Your task to perform on an android device: turn on data saver in the chrome app Image 0: 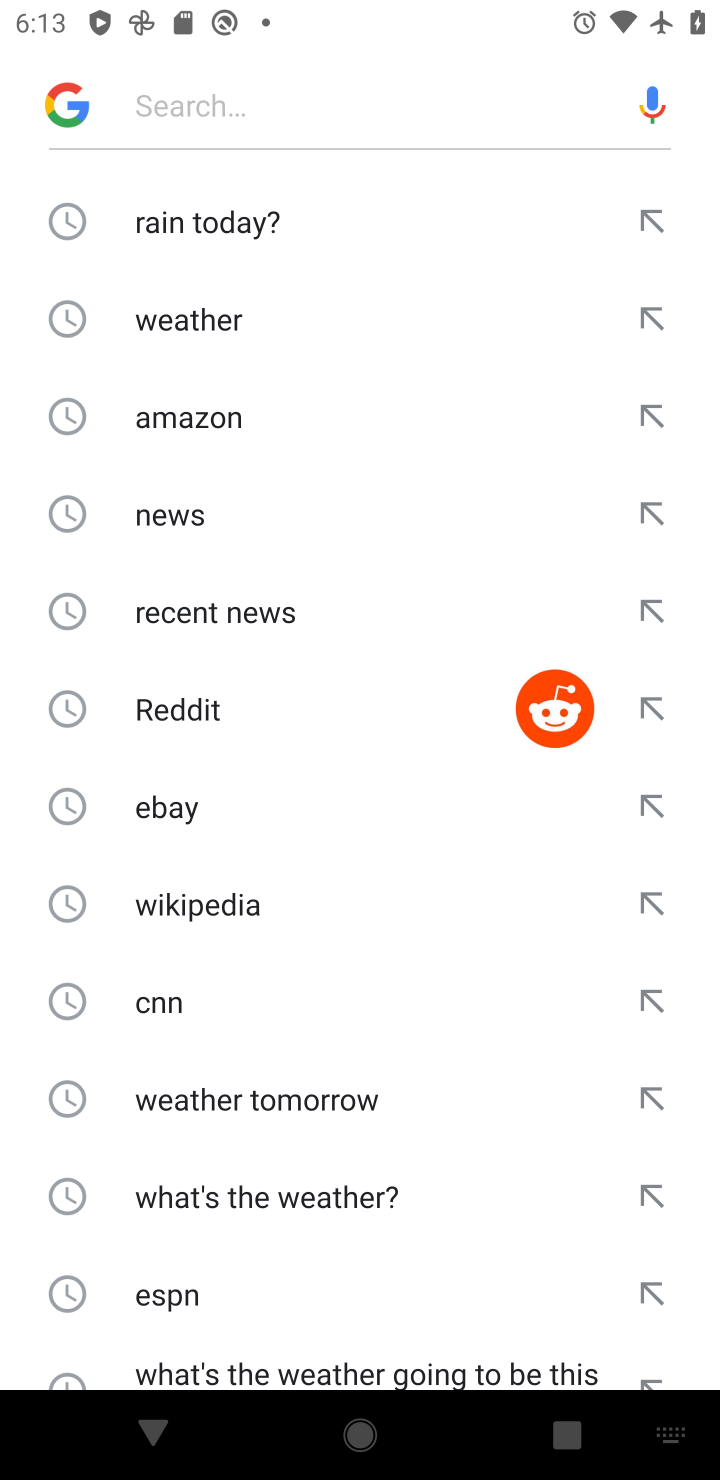
Step 0: press home button
Your task to perform on an android device: turn on data saver in the chrome app Image 1: 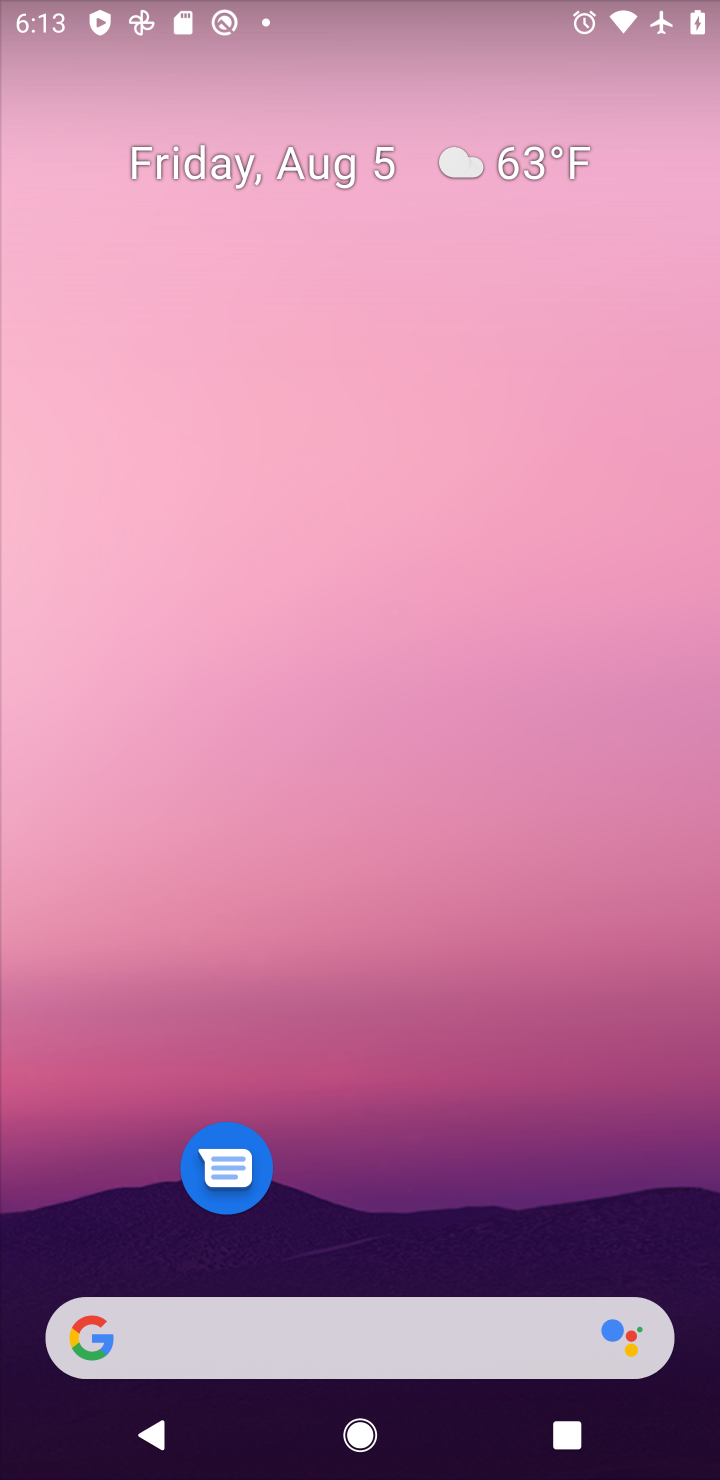
Step 1: drag from (430, 1252) to (401, 95)
Your task to perform on an android device: turn on data saver in the chrome app Image 2: 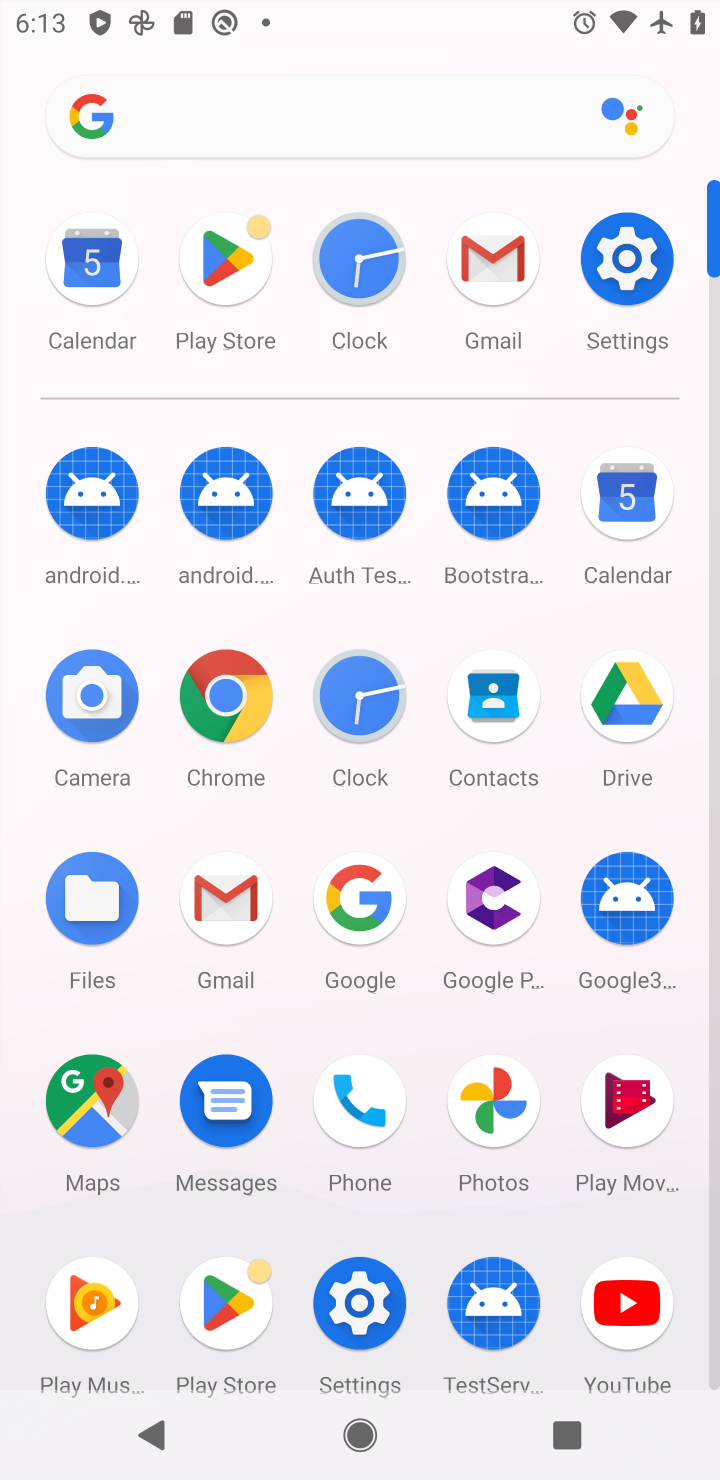
Step 2: click (221, 690)
Your task to perform on an android device: turn on data saver in the chrome app Image 3: 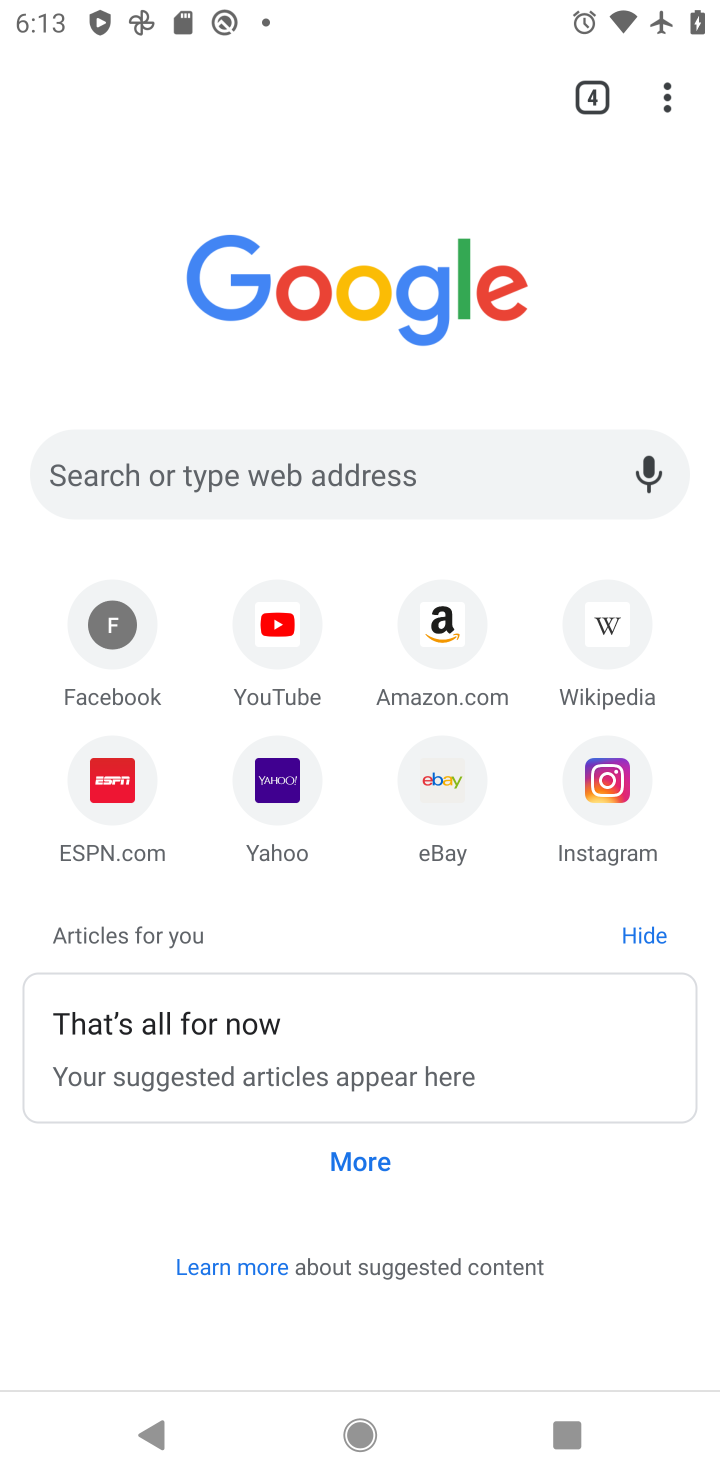
Step 3: drag from (668, 83) to (289, 817)
Your task to perform on an android device: turn on data saver in the chrome app Image 4: 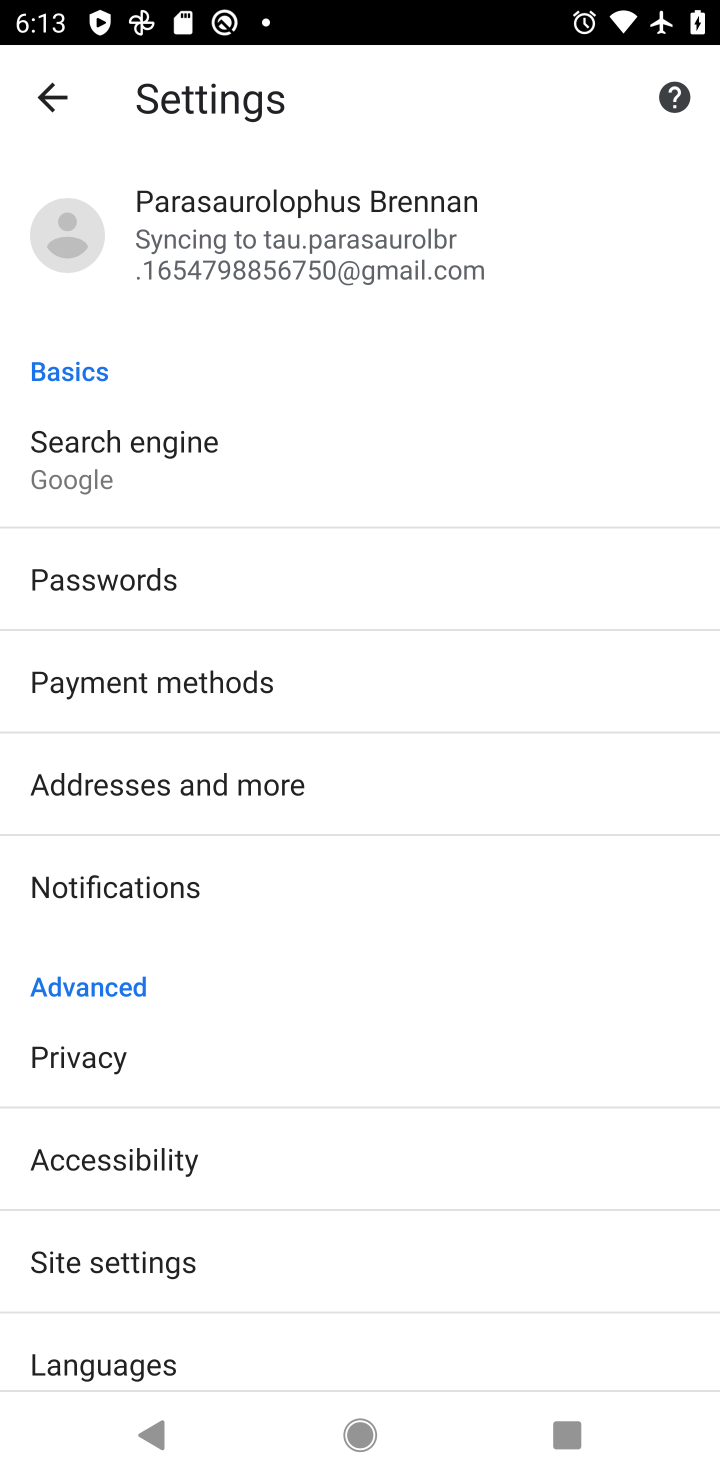
Step 4: drag from (331, 1355) to (350, 176)
Your task to perform on an android device: turn on data saver in the chrome app Image 5: 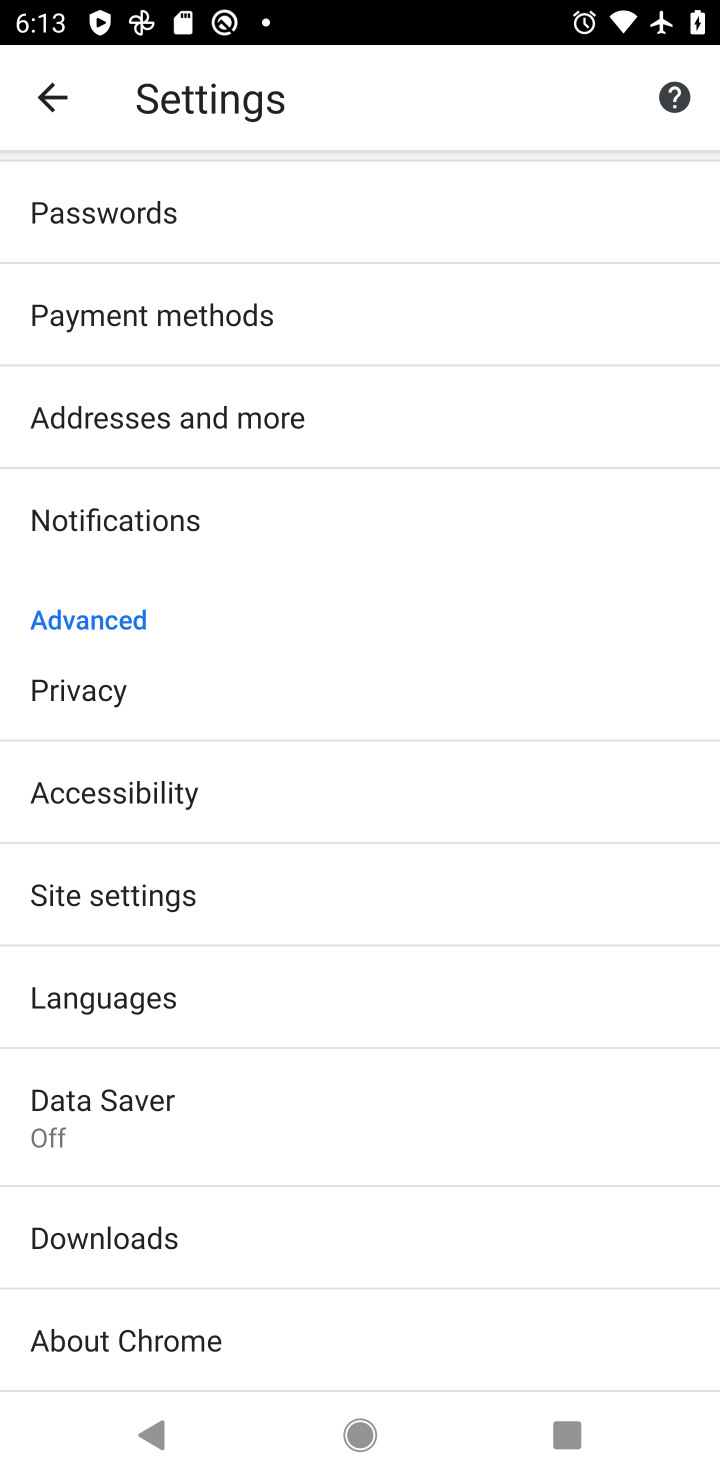
Step 5: click (66, 1095)
Your task to perform on an android device: turn on data saver in the chrome app Image 6: 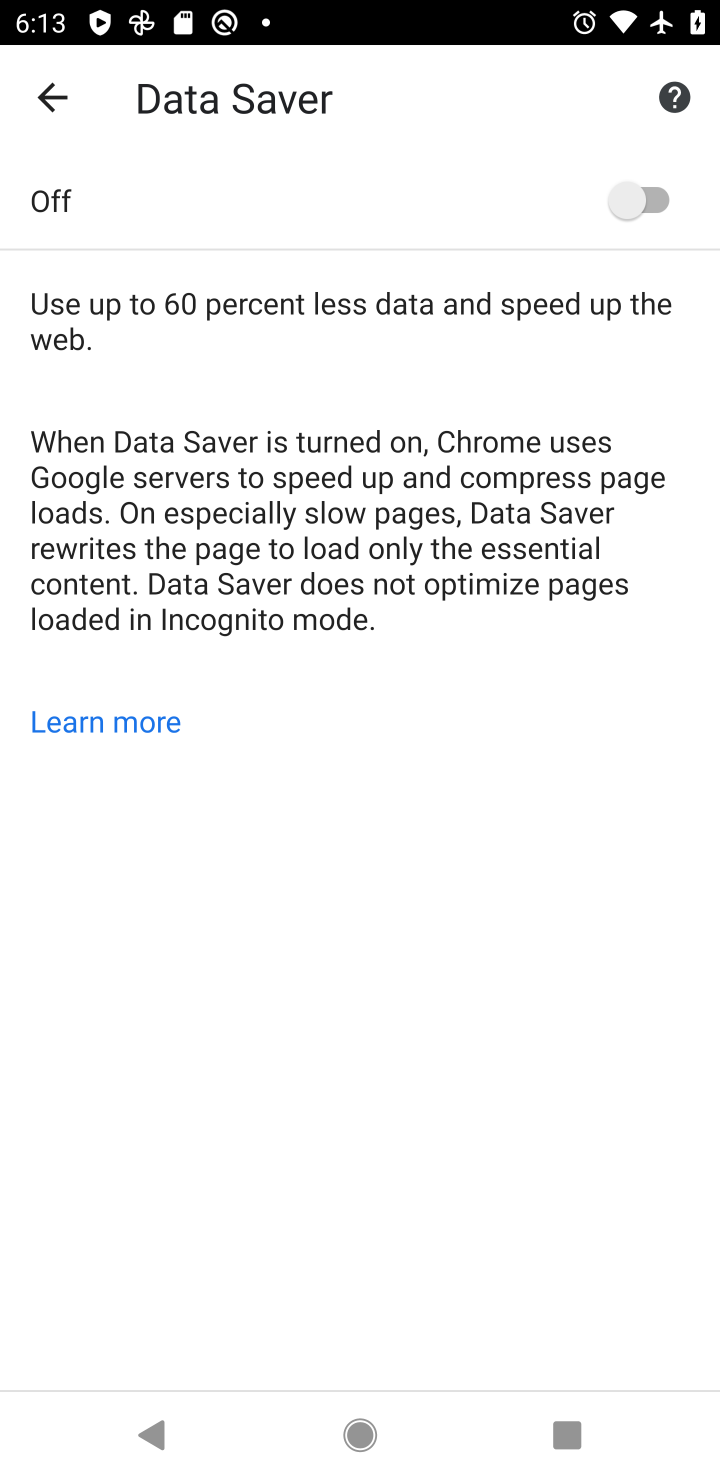
Step 6: click (638, 192)
Your task to perform on an android device: turn on data saver in the chrome app Image 7: 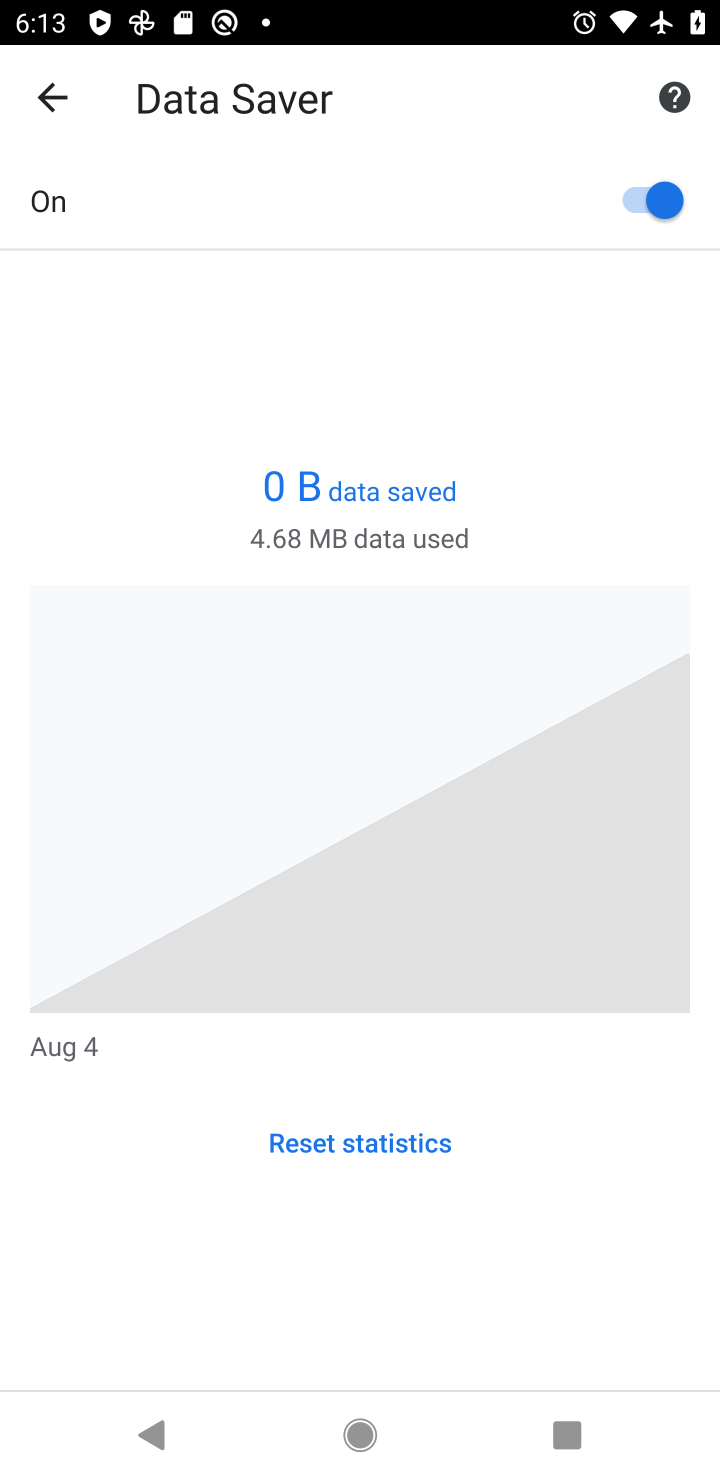
Step 7: task complete